Your task to perform on an android device: Go to internet settings Image 0: 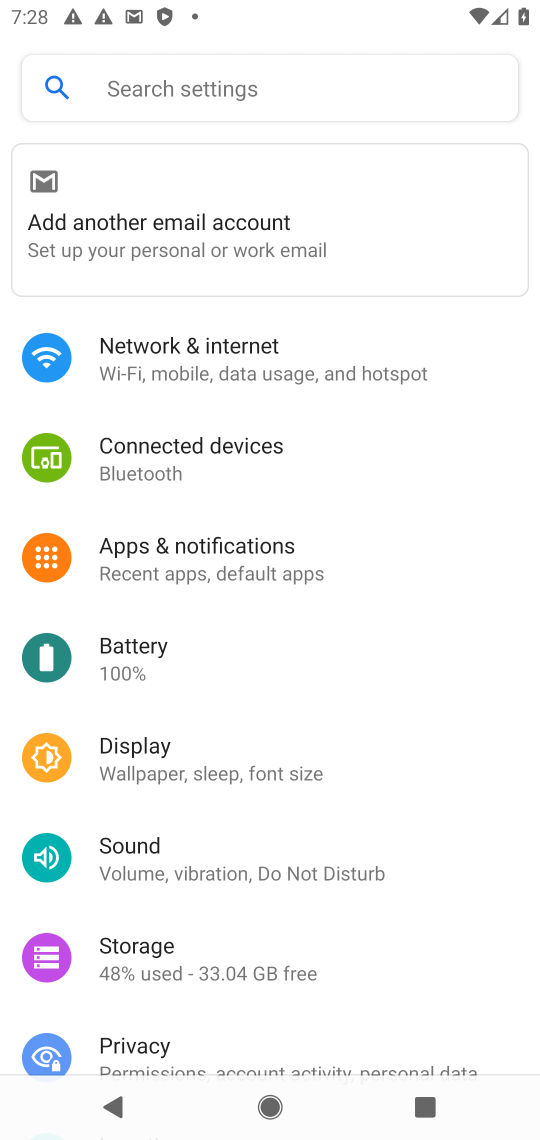
Step 0: click (218, 364)
Your task to perform on an android device: Go to internet settings Image 1: 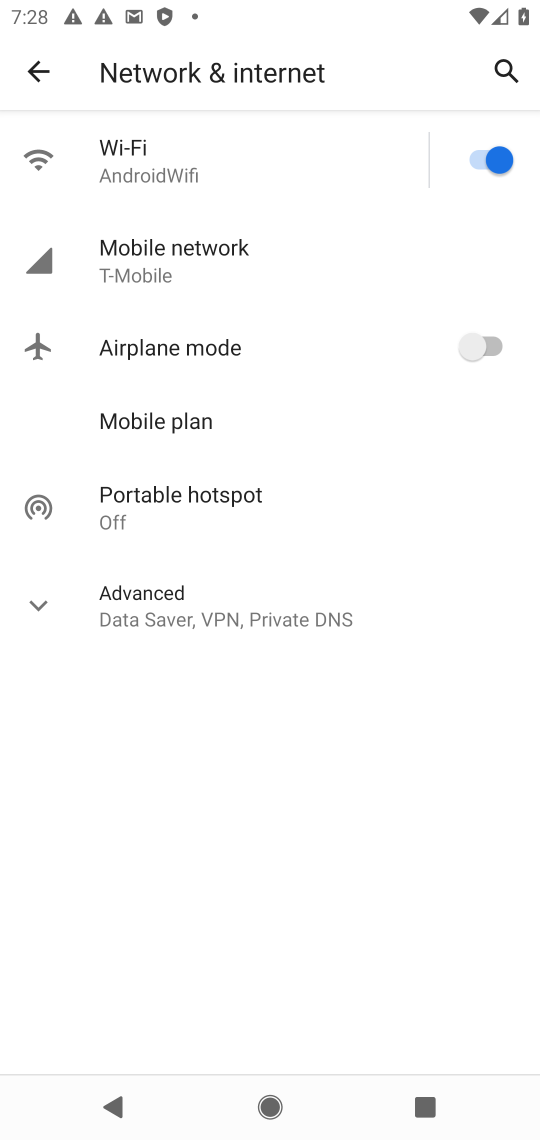
Step 1: click (183, 184)
Your task to perform on an android device: Go to internet settings Image 2: 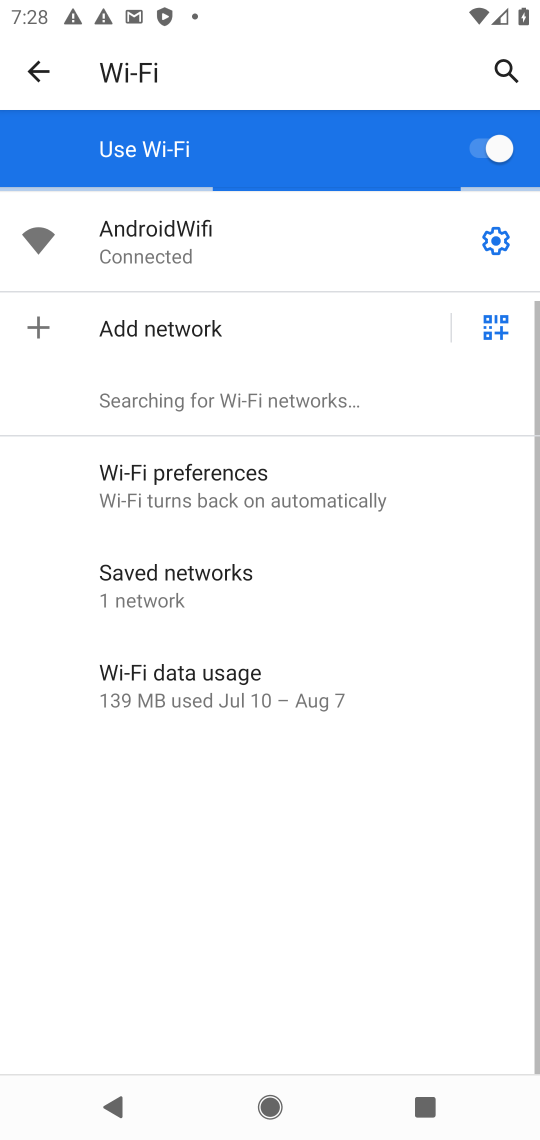
Step 2: task complete